Your task to perform on an android device: What's the weather going to be tomorrow? Image 0: 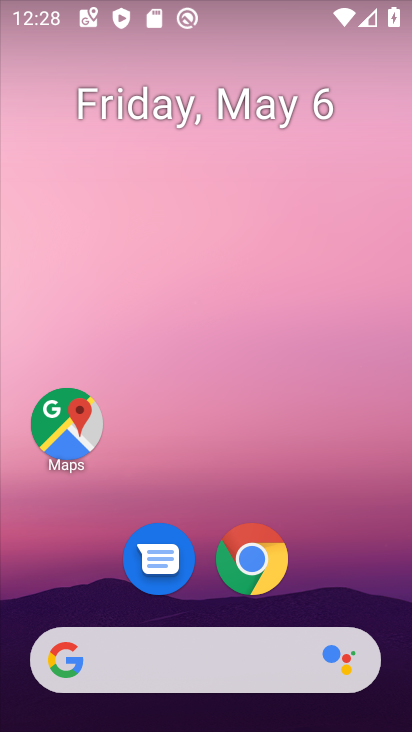
Step 0: drag from (326, 605) to (280, 140)
Your task to perform on an android device: What's the weather going to be tomorrow? Image 1: 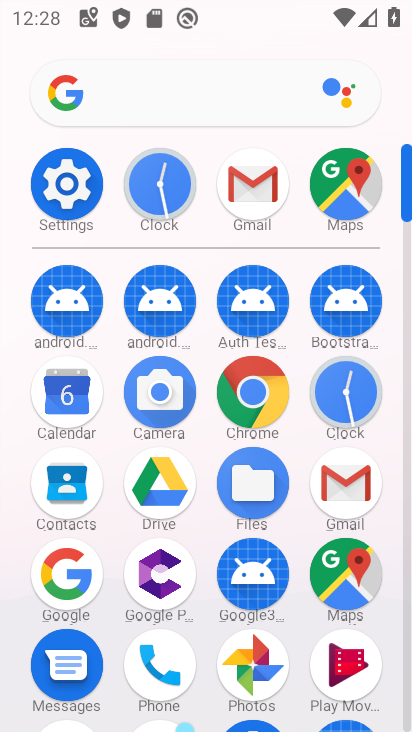
Step 1: click (130, 100)
Your task to perform on an android device: What's the weather going to be tomorrow? Image 2: 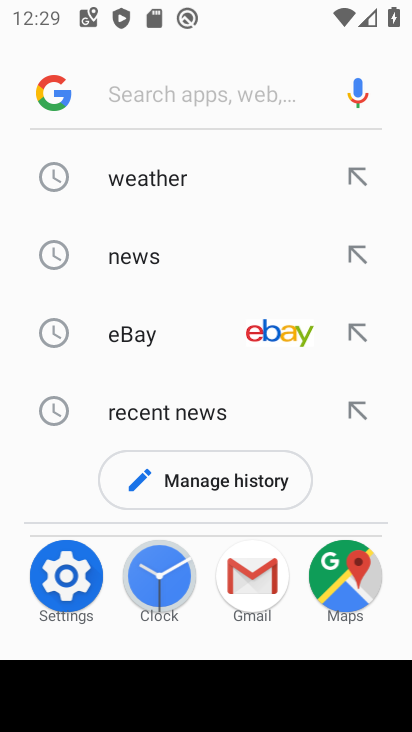
Step 2: type "what's the weather going to be tomorrow"
Your task to perform on an android device: What's the weather going to be tomorrow? Image 3: 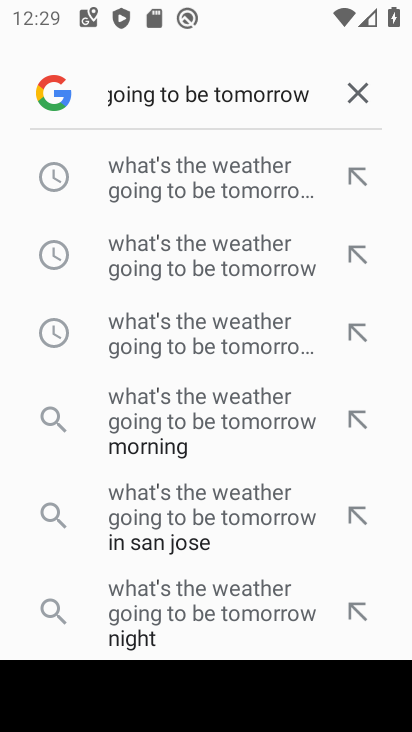
Step 3: click (194, 249)
Your task to perform on an android device: What's the weather going to be tomorrow? Image 4: 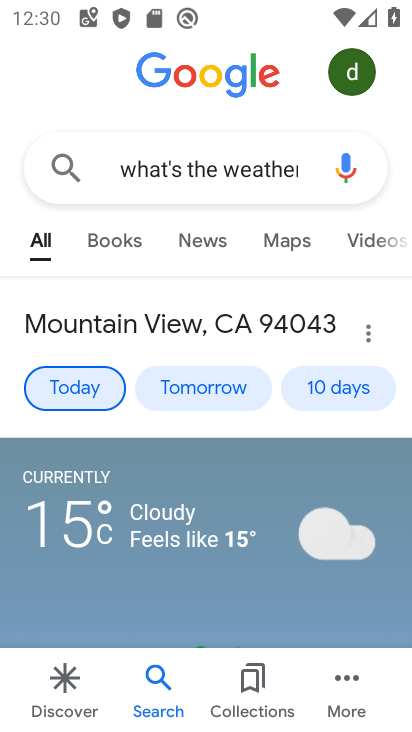
Step 4: click (164, 393)
Your task to perform on an android device: What's the weather going to be tomorrow? Image 5: 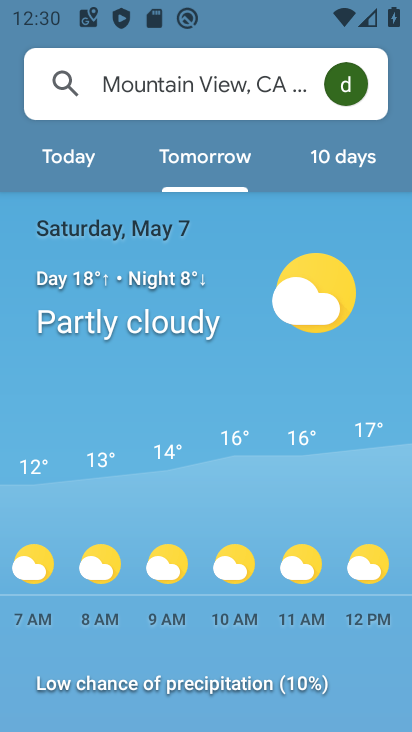
Step 5: task complete